Your task to perform on an android device: delete a single message in the gmail app Image 0: 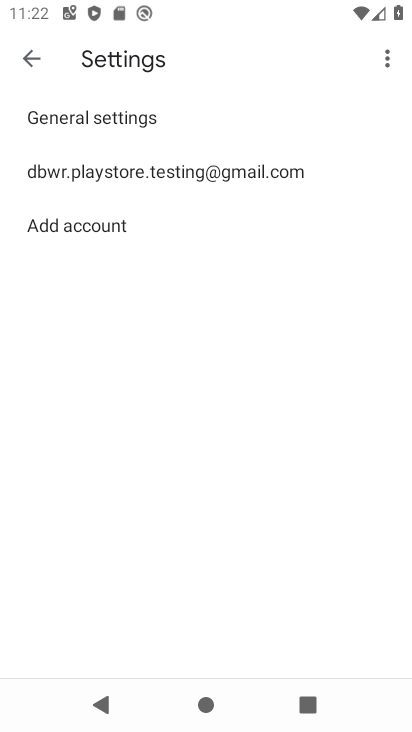
Step 0: press home button
Your task to perform on an android device: delete a single message in the gmail app Image 1: 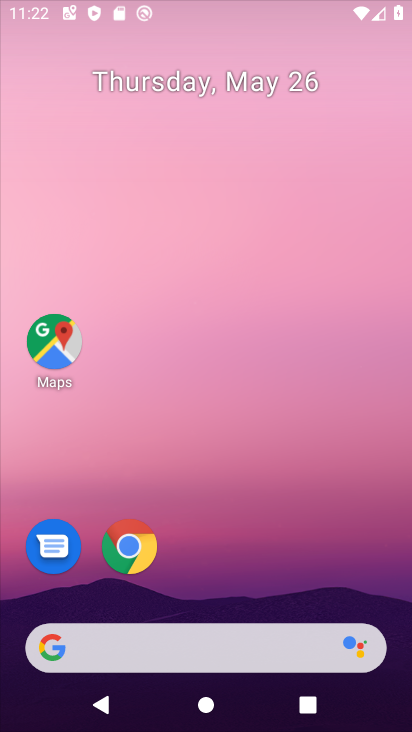
Step 1: drag from (203, 581) to (244, 112)
Your task to perform on an android device: delete a single message in the gmail app Image 2: 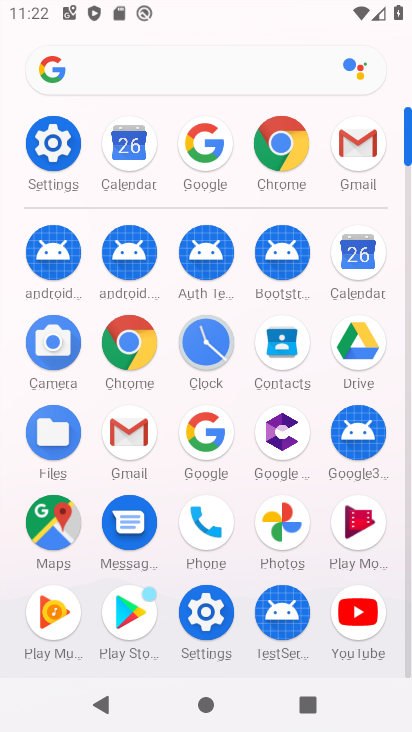
Step 2: click (127, 431)
Your task to perform on an android device: delete a single message in the gmail app Image 3: 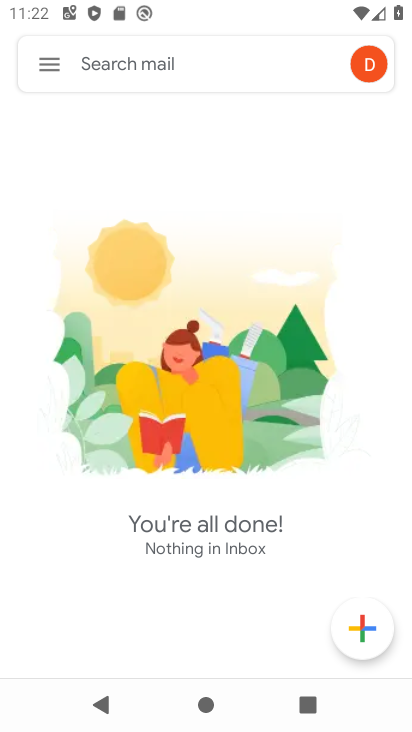
Step 3: click (53, 66)
Your task to perform on an android device: delete a single message in the gmail app Image 4: 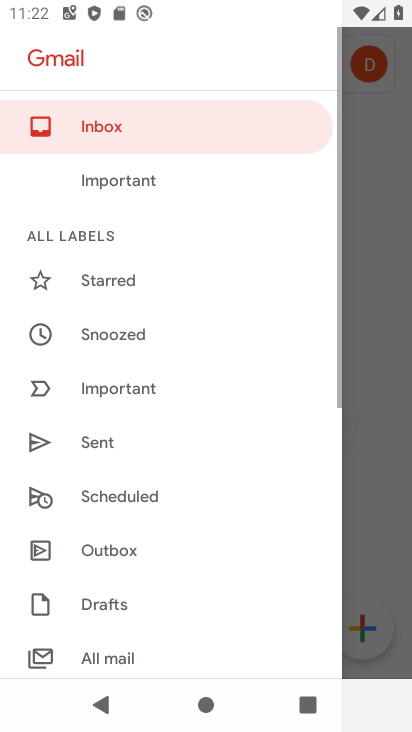
Step 4: drag from (242, 574) to (219, 174)
Your task to perform on an android device: delete a single message in the gmail app Image 5: 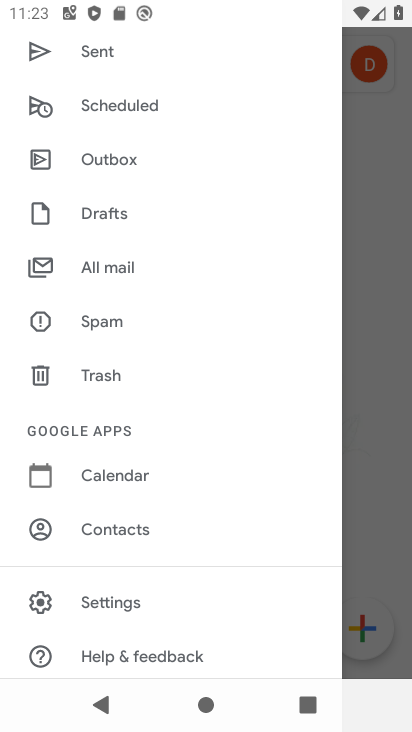
Step 5: click (124, 265)
Your task to perform on an android device: delete a single message in the gmail app Image 6: 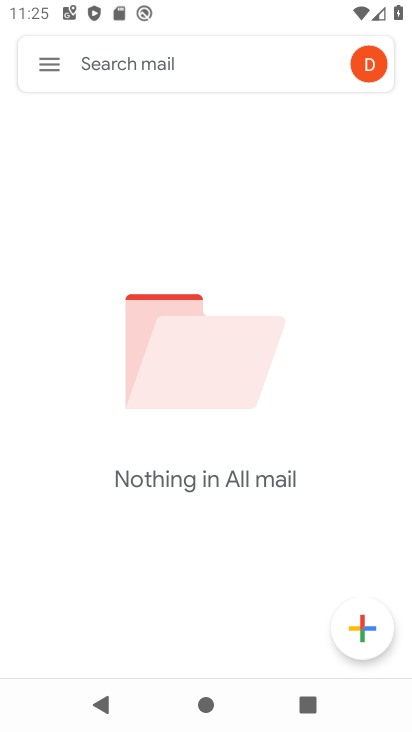
Step 6: task complete